Your task to perform on an android device: turn pop-ups off in chrome Image 0: 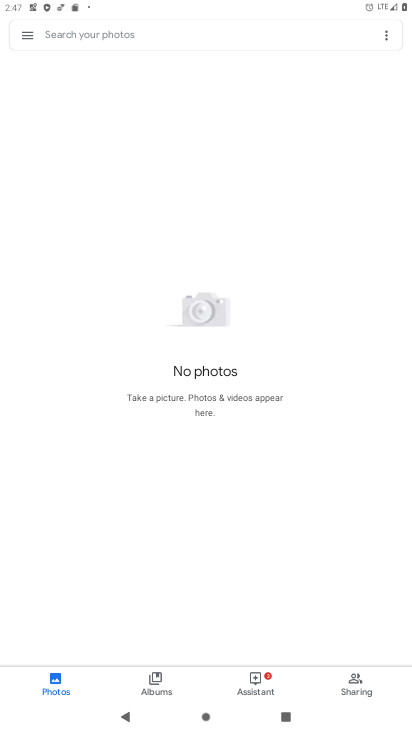
Step 0: press home button
Your task to perform on an android device: turn pop-ups off in chrome Image 1: 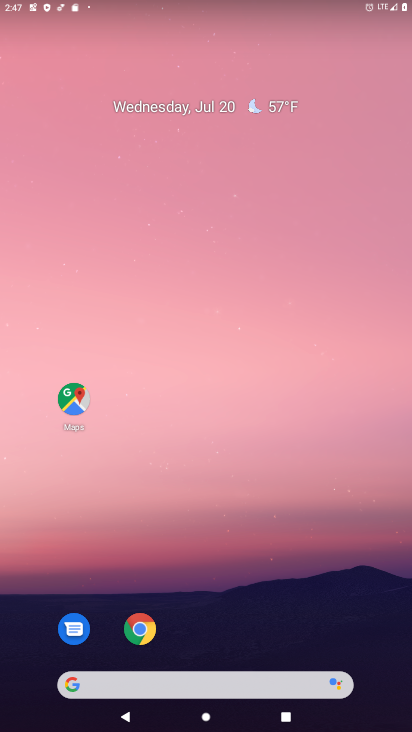
Step 1: click (141, 630)
Your task to perform on an android device: turn pop-ups off in chrome Image 2: 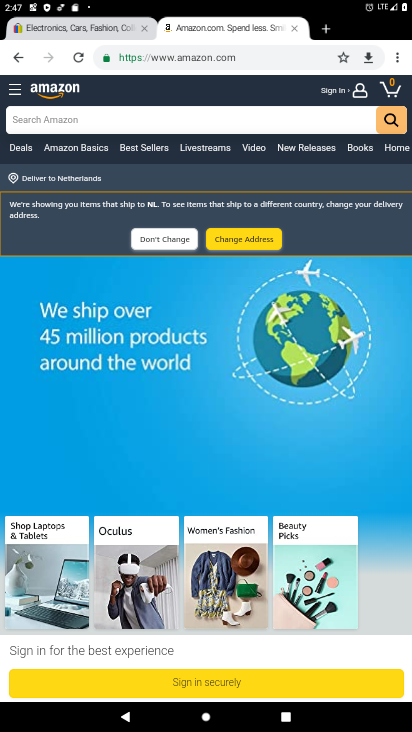
Step 2: click (397, 62)
Your task to perform on an android device: turn pop-ups off in chrome Image 3: 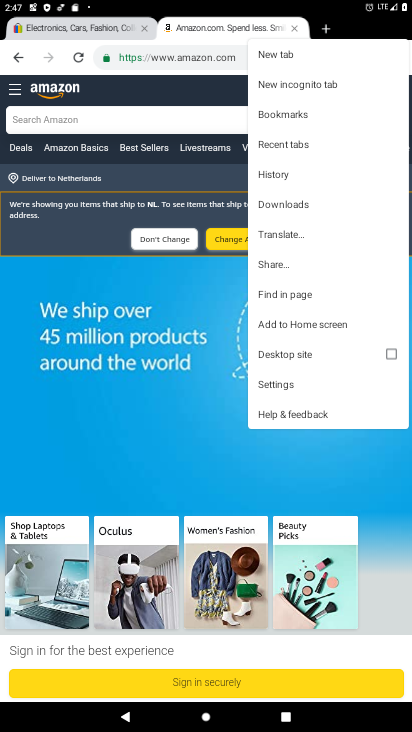
Step 3: click (276, 386)
Your task to perform on an android device: turn pop-ups off in chrome Image 4: 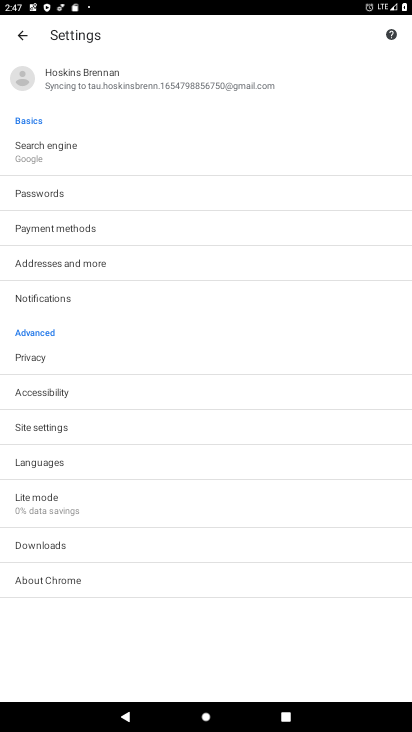
Step 4: click (40, 429)
Your task to perform on an android device: turn pop-ups off in chrome Image 5: 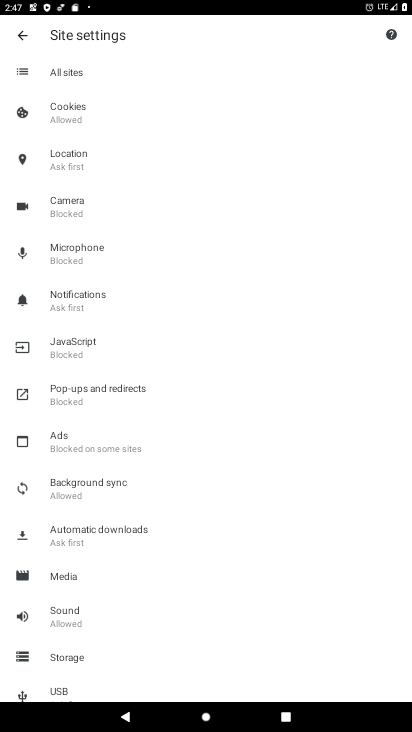
Step 5: click (65, 396)
Your task to perform on an android device: turn pop-ups off in chrome Image 6: 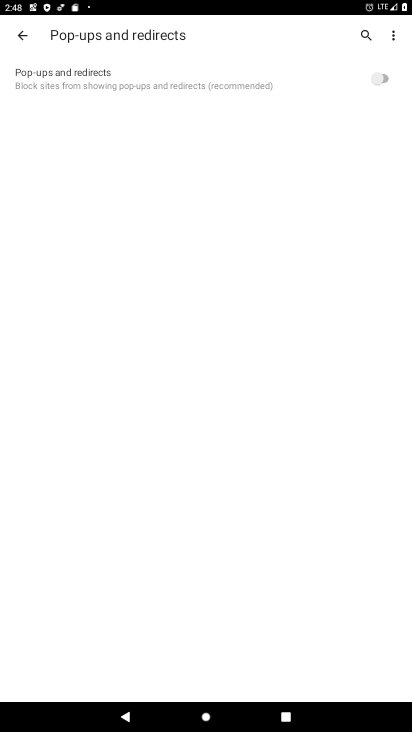
Step 6: task complete